Your task to perform on an android device: manage bookmarks in the chrome app Image 0: 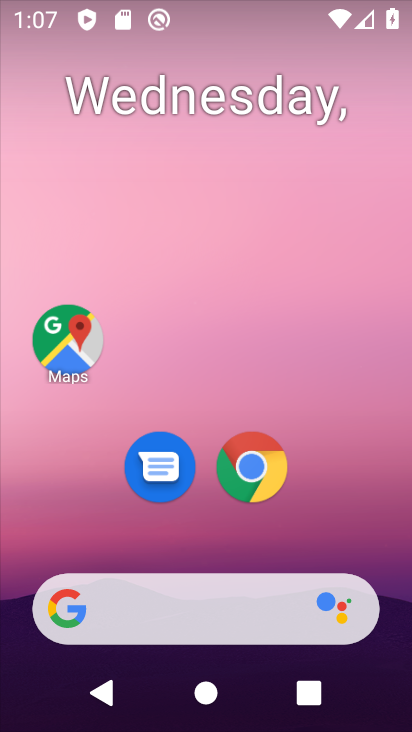
Step 0: click (270, 475)
Your task to perform on an android device: manage bookmarks in the chrome app Image 1: 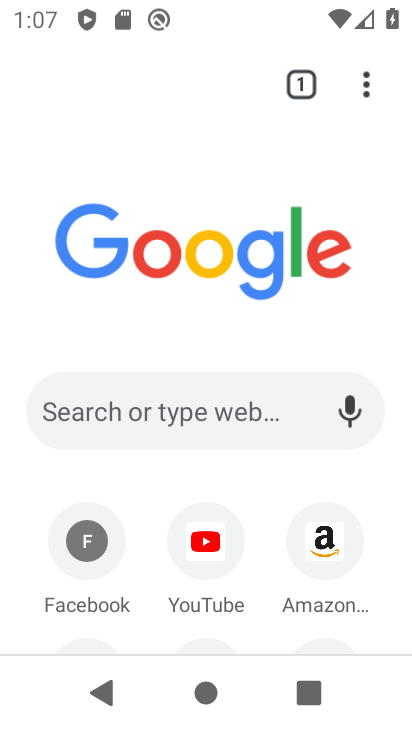
Step 1: click (365, 78)
Your task to perform on an android device: manage bookmarks in the chrome app Image 2: 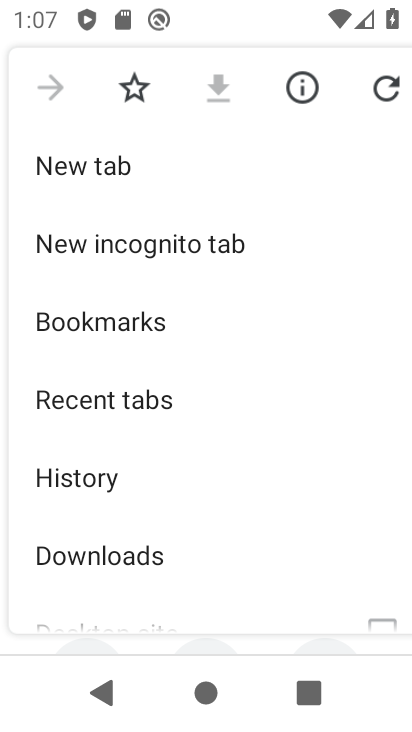
Step 2: click (215, 329)
Your task to perform on an android device: manage bookmarks in the chrome app Image 3: 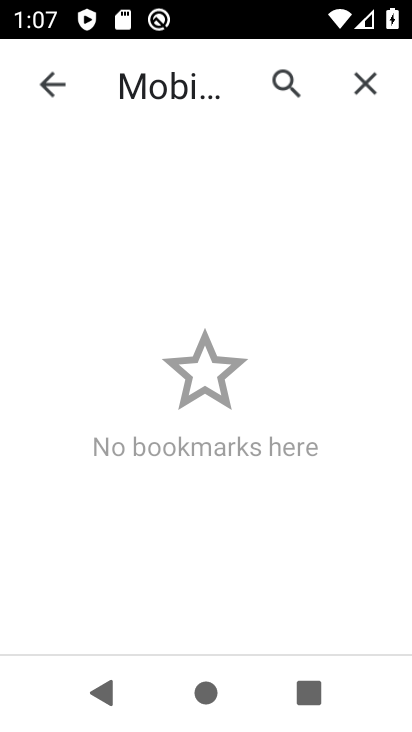
Step 3: task complete